Your task to perform on an android device: open a new tab in the chrome app Image 0: 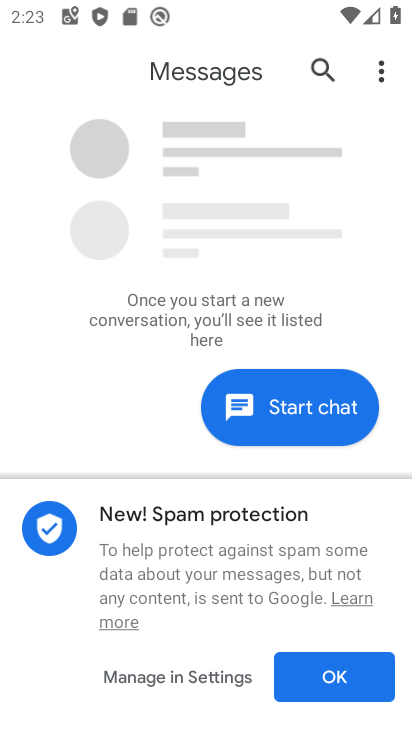
Step 0: press home button
Your task to perform on an android device: open a new tab in the chrome app Image 1: 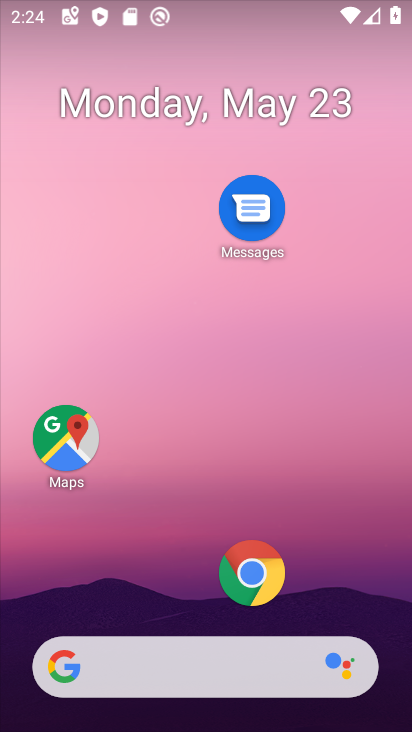
Step 1: drag from (282, 631) to (55, 5)
Your task to perform on an android device: open a new tab in the chrome app Image 2: 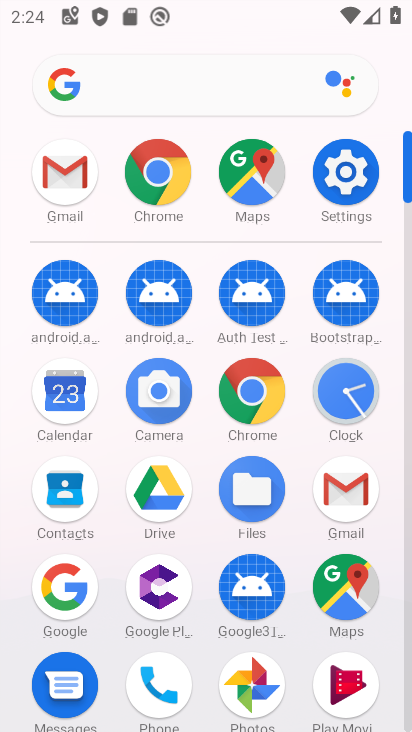
Step 2: click (248, 402)
Your task to perform on an android device: open a new tab in the chrome app Image 3: 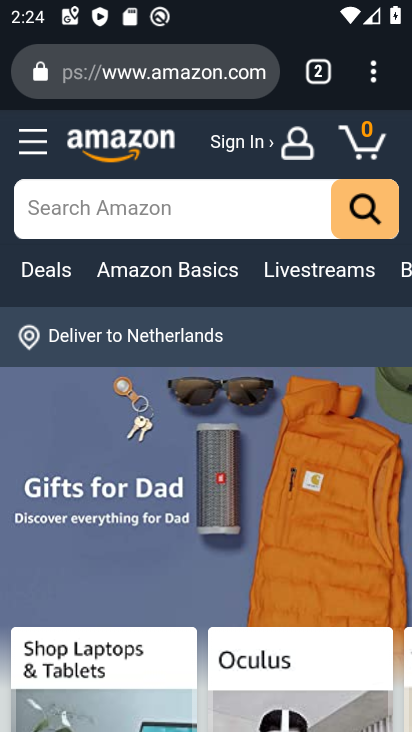
Step 3: click (365, 82)
Your task to perform on an android device: open a new tab in the chrome app Image 4: 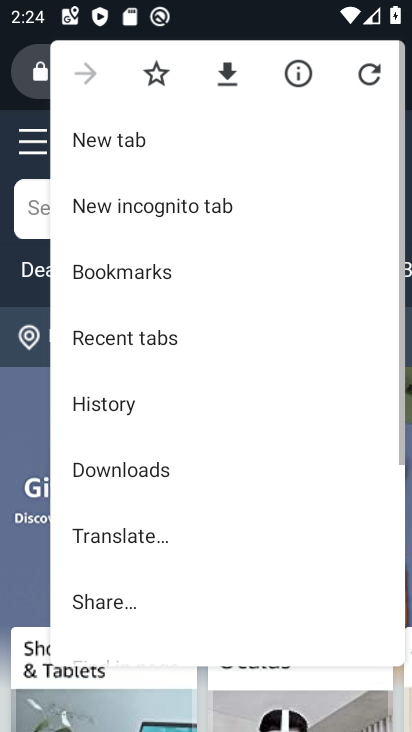
Step 4: click (199, 154)
Your task to perform on an android device: open a new tab in the chrome app Image 5: 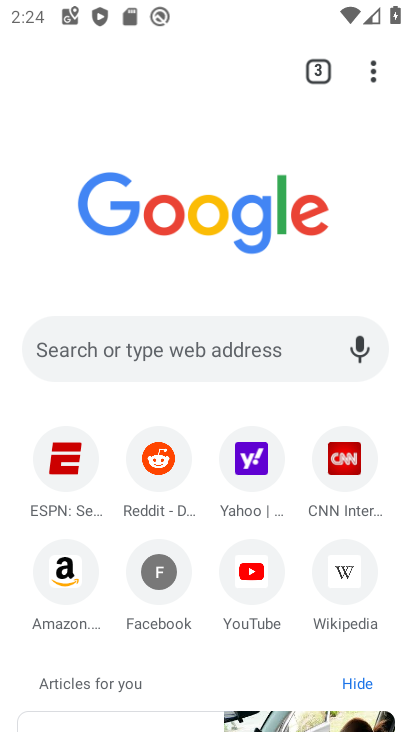
Step 5: task complete